Your task to perform on an android device: read, delete, or share a saved page in the chrome app Image 0: 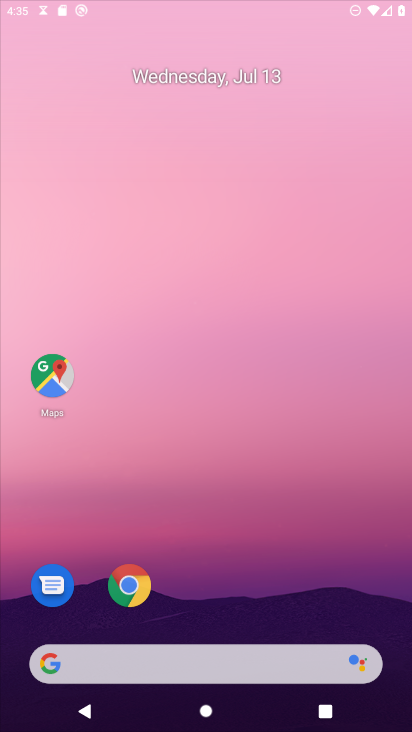
Step 0: drag from (232, 373) to (215, 82)
Your task to perform on an android device: read, delete, or share a saved page in the chrome app Image 1: 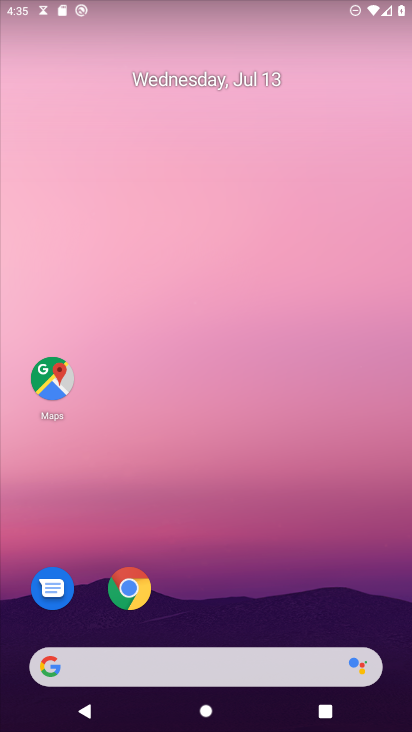
Step 1: drag from (253, 688) to (194, 246)
Your task to perform on an android device: read, delete, or share a saved page in the chrome app Image 2: 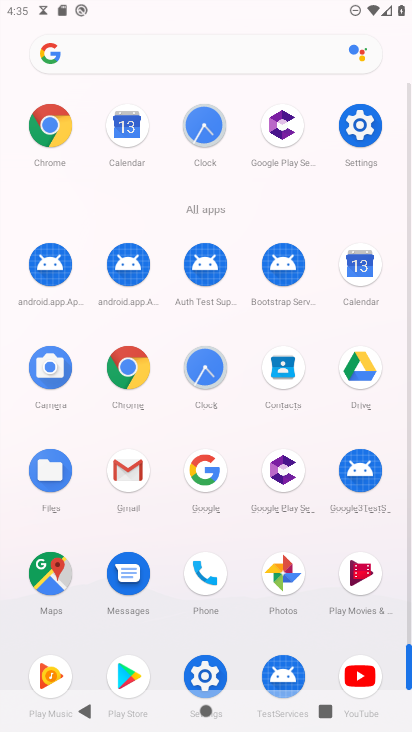
Step 2: click (123, 374)
Your task to perform on an android device: read, delete, or share a saved page in the chrome app Image 3: 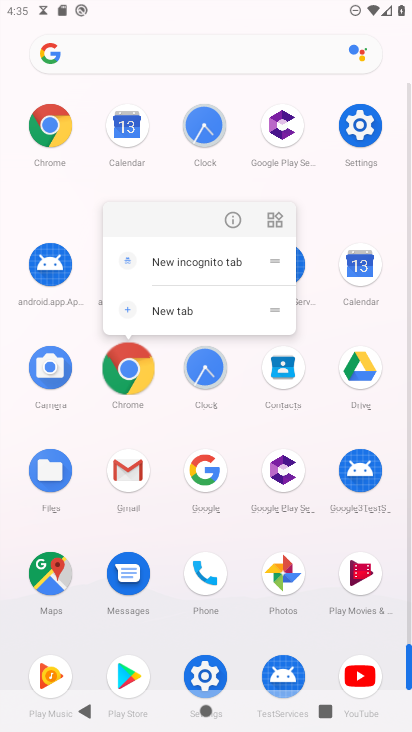
Step 3: click (123, 373)
Your task to perform on an android device: read, delete, or share a saved page in the chrome app Image 4: 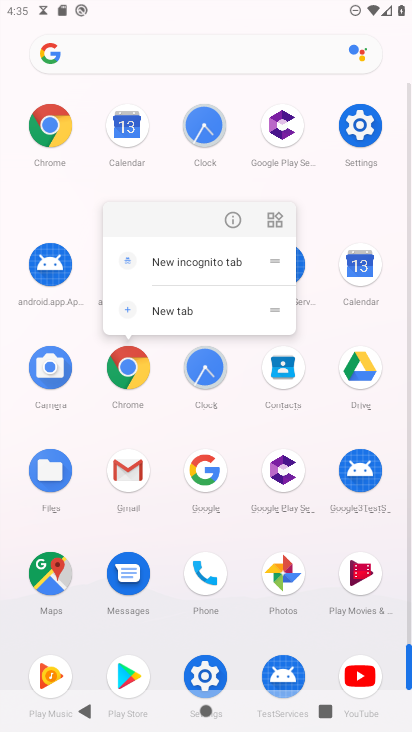
Step 4: click (126, 363)
Your task to perform on an android device: read, delete, or share a saved page in the chrome app Image 5: 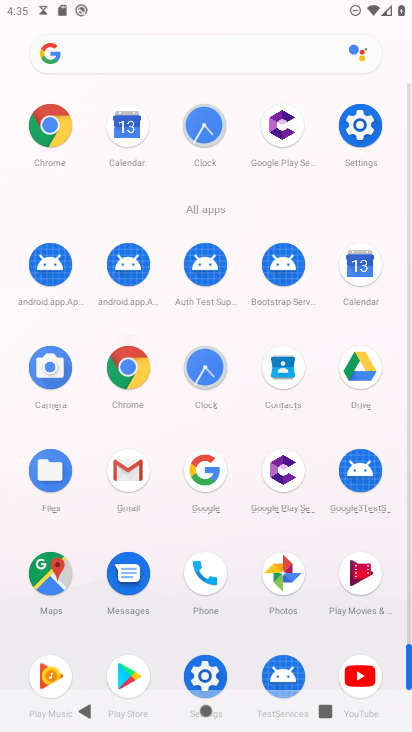
Step 5: click (125, 356)
Your task to perform on an android device: read, delete, or share a saved page in the chrome app Image 6: 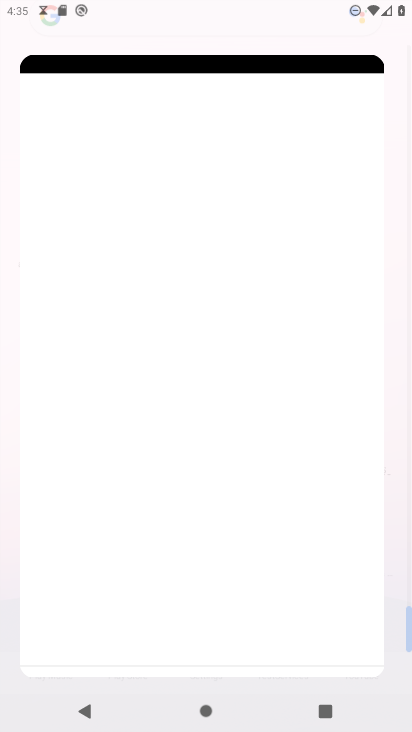
Step 6: click (126, 349)
Your task to perform on an android device: read, delete, or share a saved page in the chrome app Image 7: 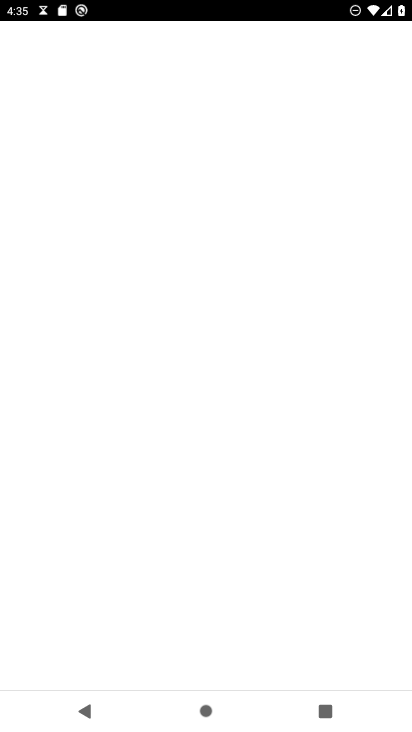
Step 7: click (133, 357)
Your task to perform on an android device: read, delete, or share a saved page in the chrome app Image 8: 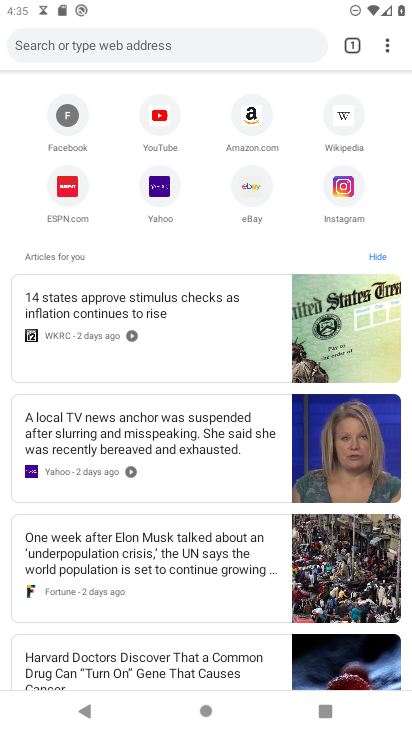
Step 8: drag from (382, 42) to (216, 307)
Your task to perform on an android device: read, delete, or share a saved page in the chrome app Image 9: 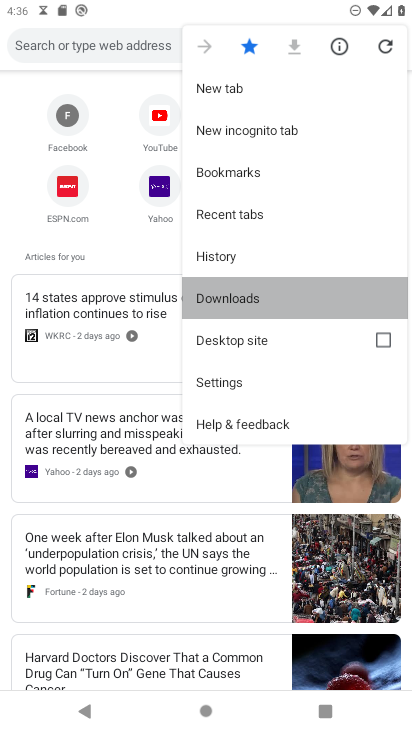
Step 9: click (216, 307)
Your task to perform on an android device: read, delete, or share a saved page in the chrome app Image 10: 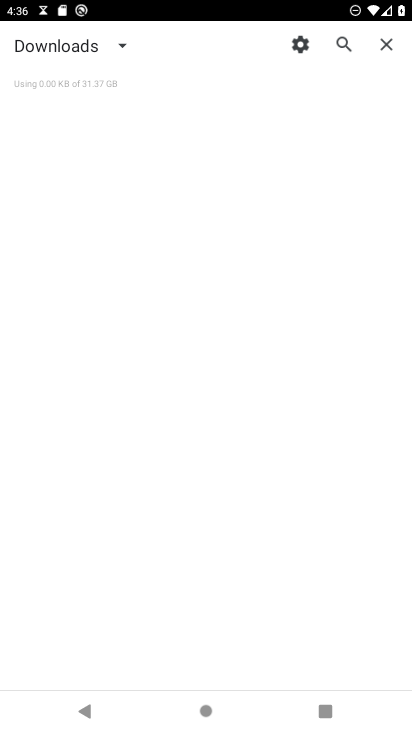
Step 10: click (124, 41)
Your task to perform on an android device: read, delete, or share a saved page in the chrome app Image 11: 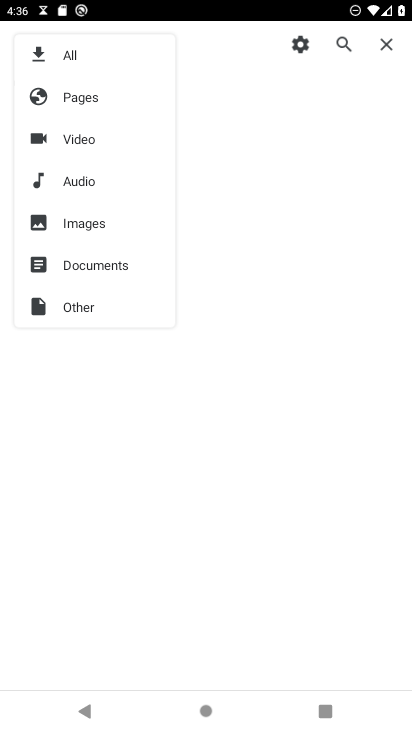
Step 11: click (80, 137)
Your task to perform on an android device: read, delete, or share a saved page in the chrome app Image 12: 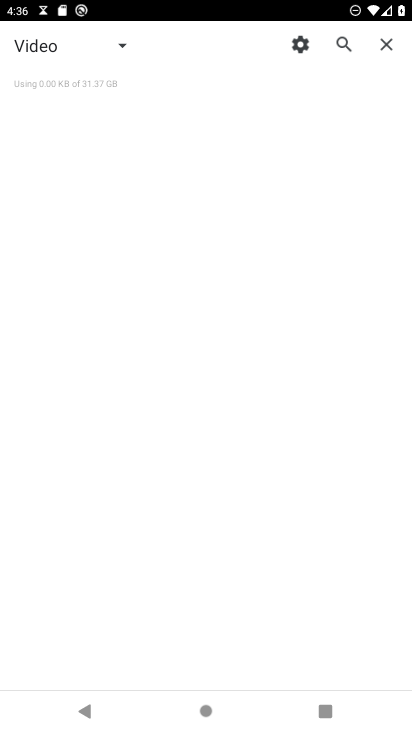
Step 12: task complete